Your task to perform on an android device: See recent photos Image 0: 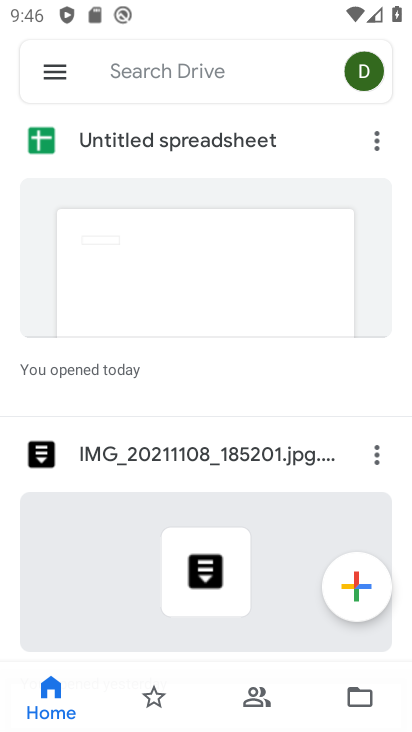
Step 0: press home button
Your task to perform on an android device: See recent photos Image 1: 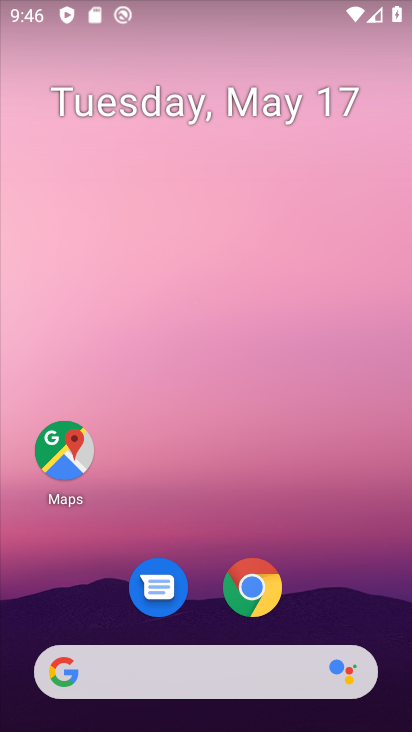
Step 1: drag from (234, 488) to (229, 377)
Your task to perform on an android device: See recent photos Image 2: 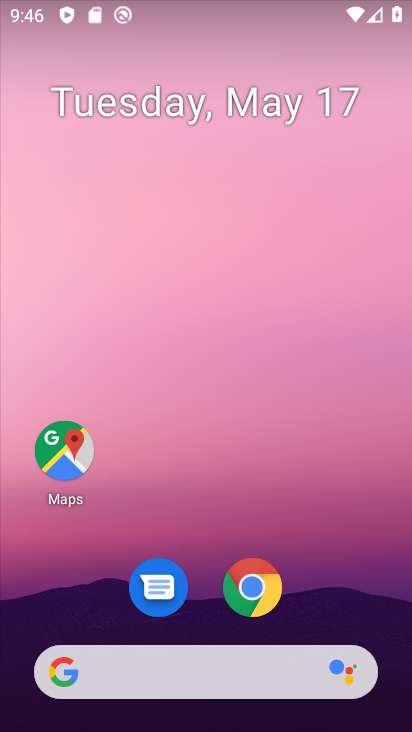
Step 2: drag from (344, 608) to (318, 211)
Your task to perform on an android device: See recent photos Image 3: 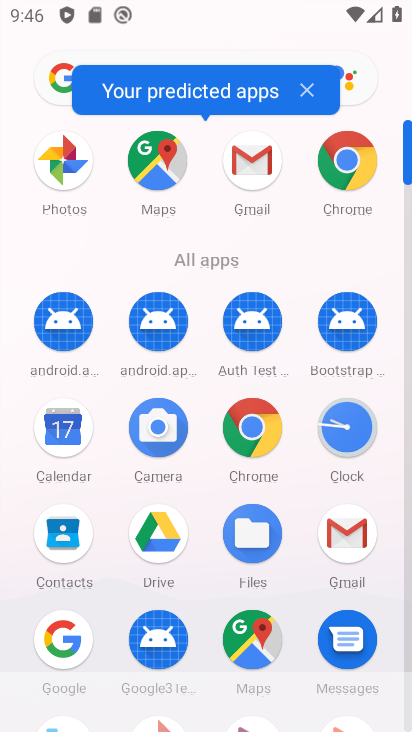
Step 3: drag from (201, 575) to (205, 151)
Your task to perform on an android device: See recent photos Image 4: 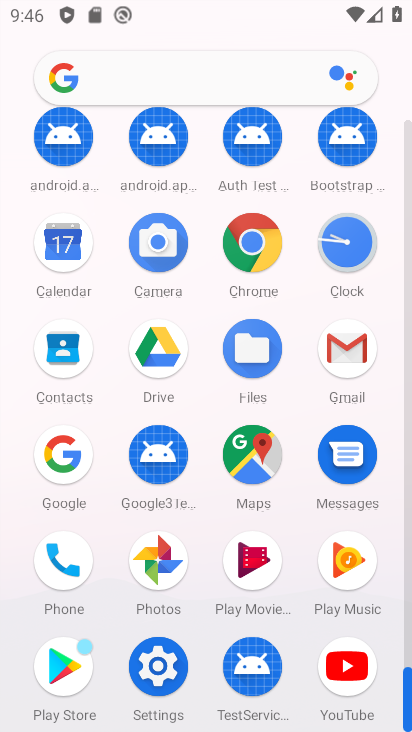
Step 4: click (162, 561)
Your task to perform on an android device: See recent photos Image 5: 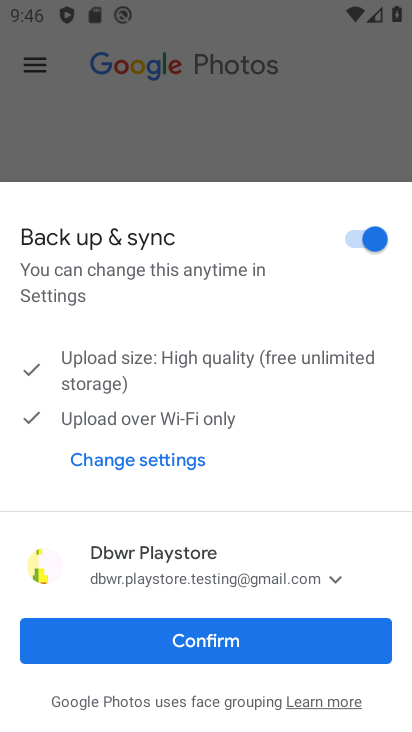
Step 5: click (203, 633)
Your task to perform on an android device: See recent photos Image 6: 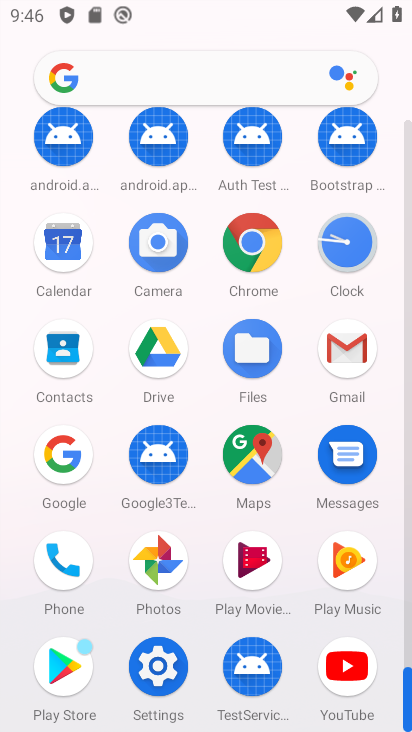
Step 6: click (154, 555)
Your task to perform on an android device: See recent photos Image 7: 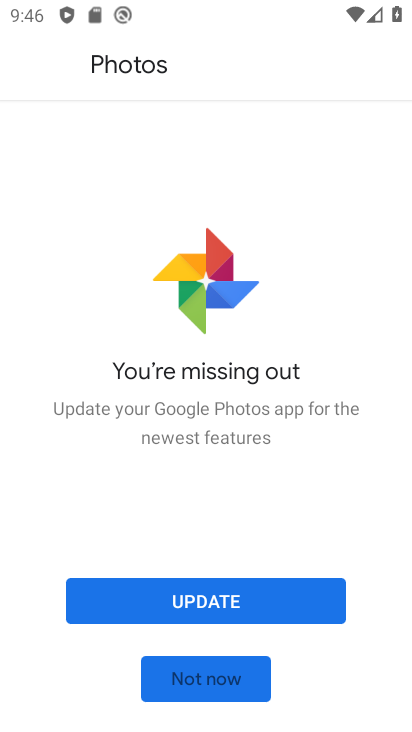
Step 7: click (198, 609)
Your task to perform on an android device: See recent photos Image 8: 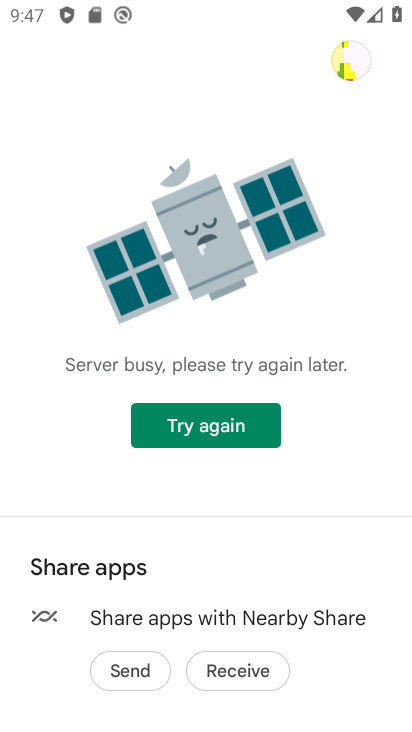
Step 8: click (209, 437)
Your task to perform on an android device: See recent photos Image 9: 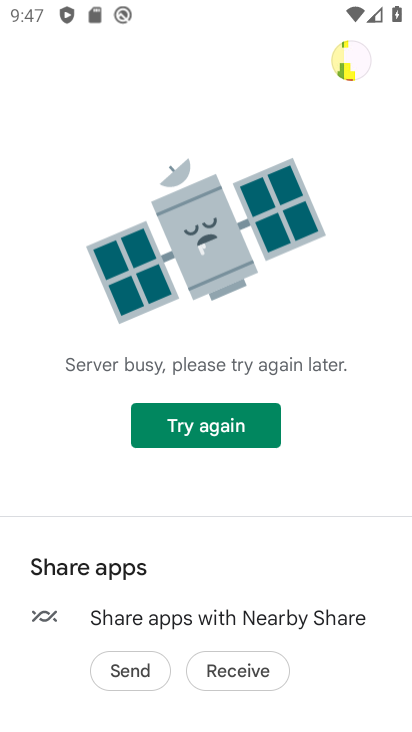
Step 9: task complete